Your task to perform on an android device: all mails in gmail Image 0: 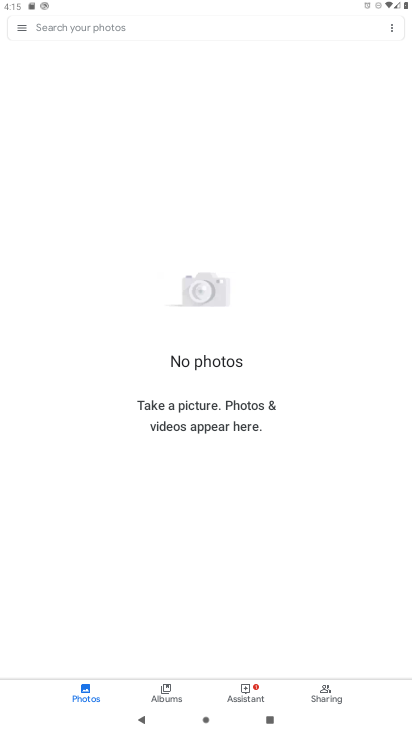
Step 0: press home button
Your task to perform on an android device: all mails in gmail Image 1: 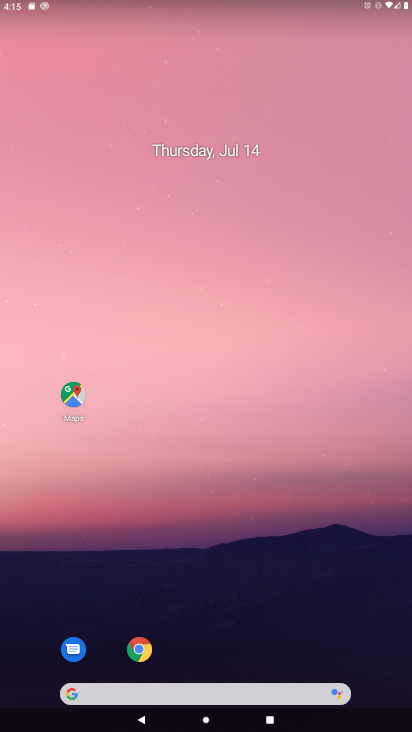
Step 1: drag from (280, 596) to (250, 11)
Your task to perform on an android device: all mails in gmail Image 2: 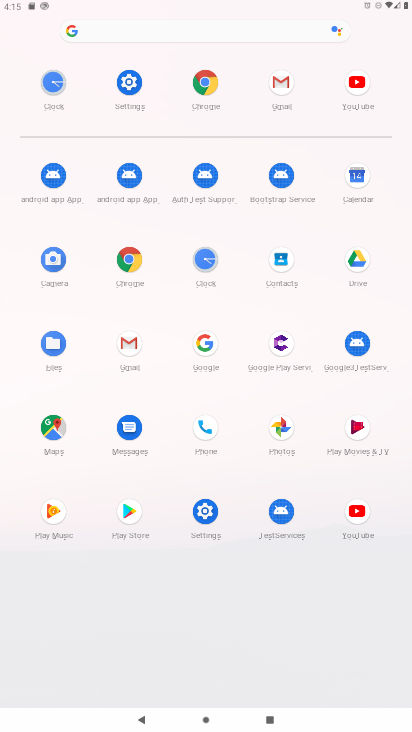
Step 2: click (121, 348)
Your task to perform on an android device: all mails in gmail Image 3: 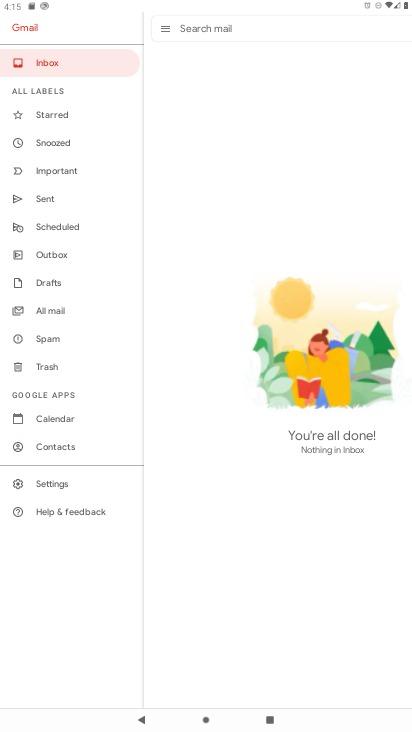
Step 3: click (58, 310)
Your task to perform on an android device: all mails in gmail Image 4: 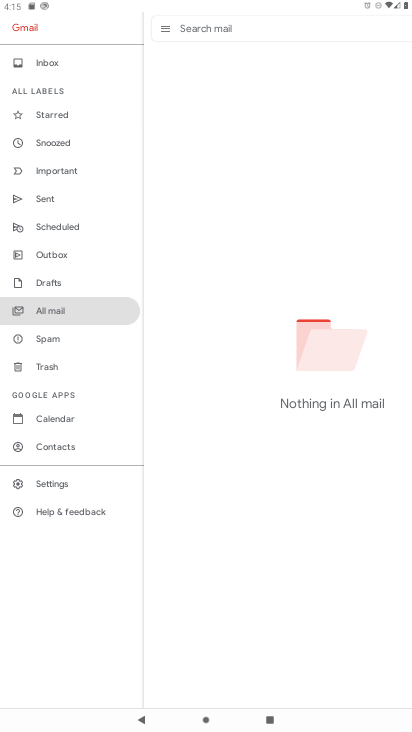
Step 4: task complete